Your task to perform on an android device: turn off translation in the chrome app Image 0: 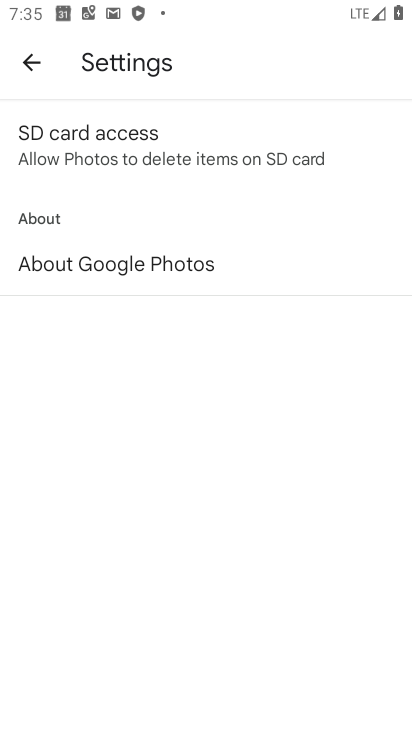
Step 0: press home button
Your task to perform on an android device: turn off translation in the chrome app Image 1: 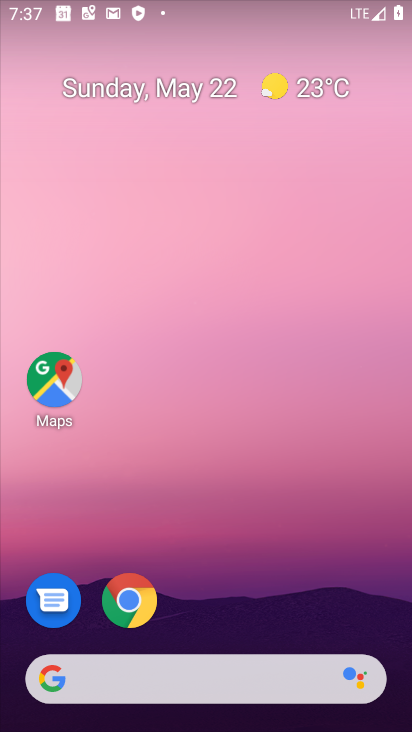
Step 1: drag from (376, 610) to (203, 99)
Your task to perform on an android device: turn off translation in the chrome app Image 2: 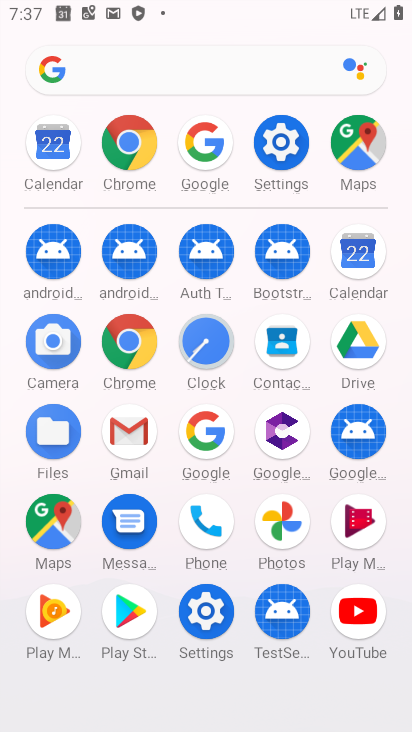
Step 2: click (122, 325)
Your task to perform on an android device: turn off translation in the chrome app Image 3: 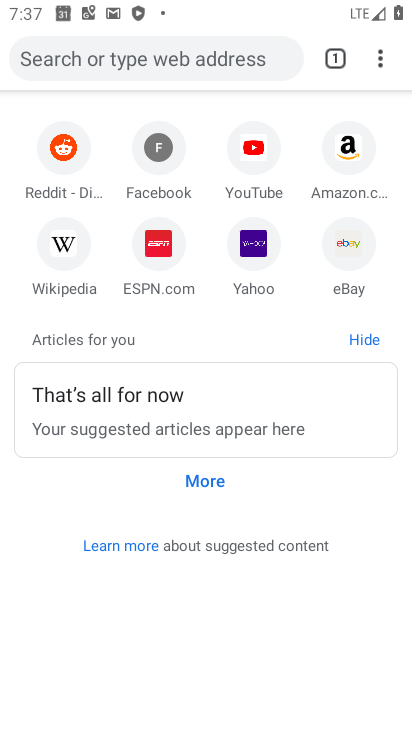
Step 3: click (386, 44)
Your task to perform on an android device: turn off translation in the chrome app Image 4: 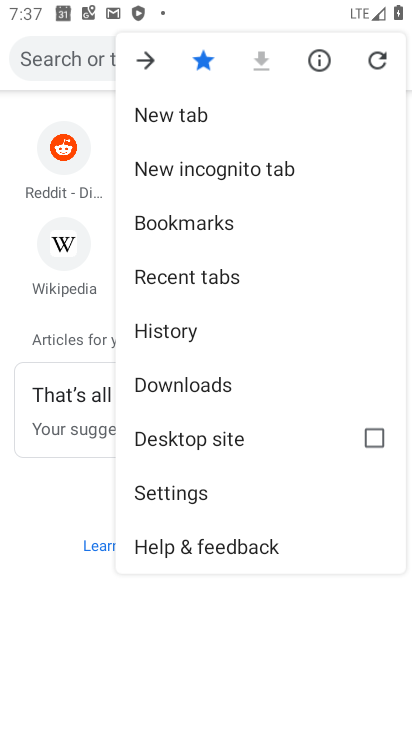
Step 4: click (217, 482)
Your task to perform on an android device: turn off translation in the chrome app Image 5: 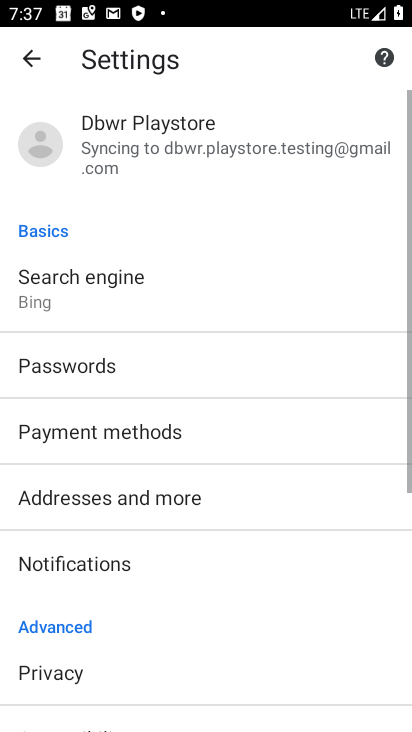
Step 5: drag from (123, 641) to (130, 237)
Your task to perform on an android device: turn off translation in the chrome app Image 6: 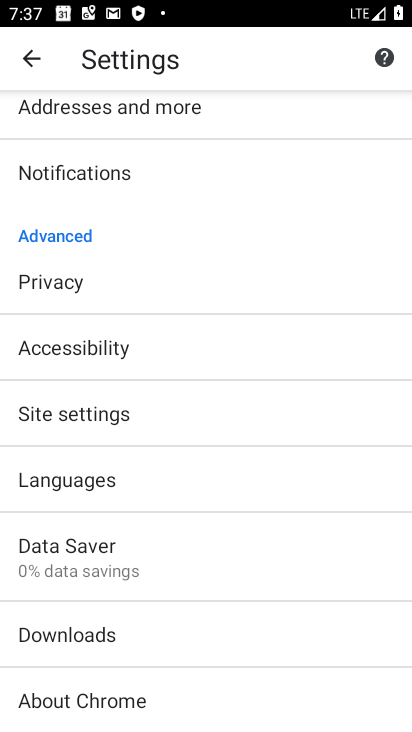
Step 6: click (111, 483)
Your task to perform on an android device: turn off translation in the chrome app Image 7: 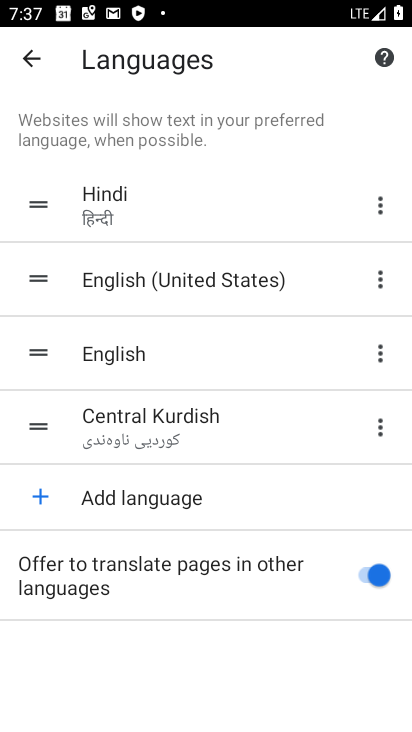
Step 7: click (352, 575)
Your task to perform on an android device: turn off translation in the chrome app Image 8: 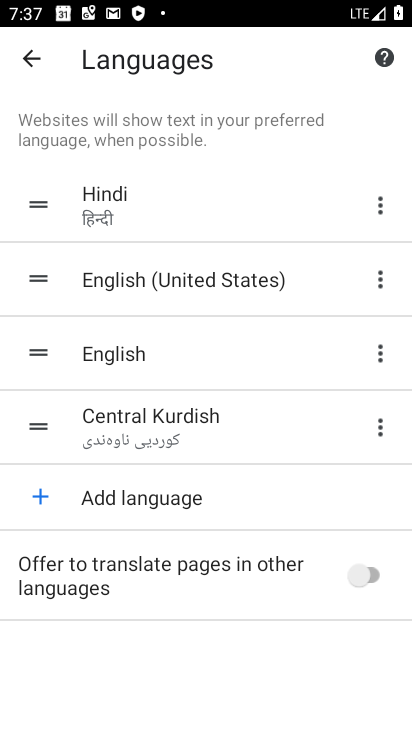
Step 8: task complete